Your task to perform on an android device: toggle location history Image 0: 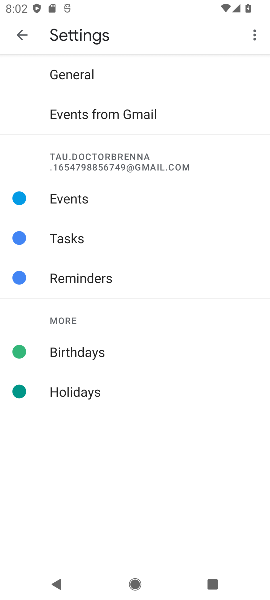
Step 0: press home button
Your task to perform on an android device: toggle location history Image 1: 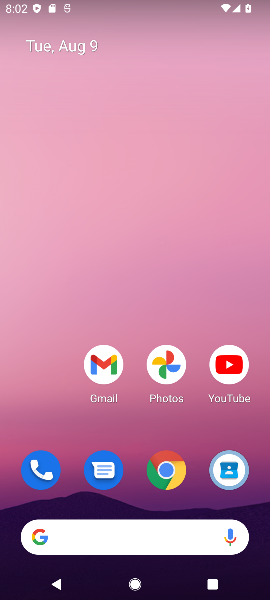
Step 1: drag from (126, 527) to (170, 167)
Your task to perform on an android device: toggle location history Image 2: 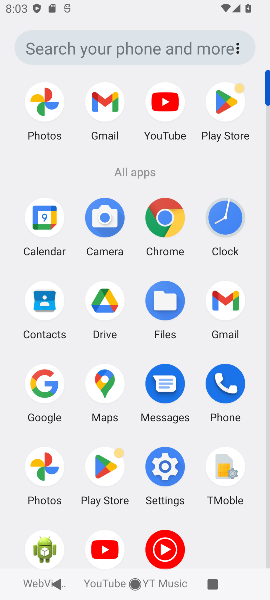
Step 2: click (164, 465)
Your task to perform on an android device: toggle location history Image 3: 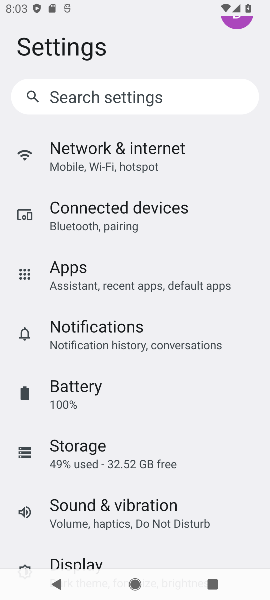
Step 3: drag from (114, 483) to (186, 380)
Your task to perform on an android device: toggle location history Image 4: 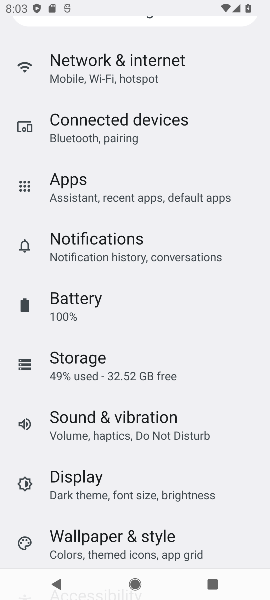
Step 4: drag from (112, 512) to (171, 414)
Your task to perform on an android device: toggle location history Image 5: 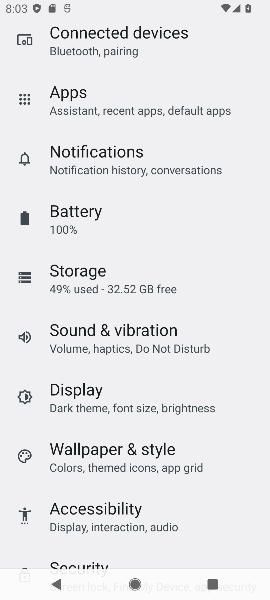
Step 5: drag from (111, 542) to (196, 392)
Your task to perform on an android device: toggle location history Image 6: 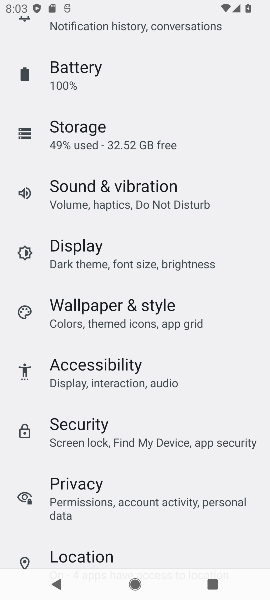
Step 6: drag from (126, 518) to (177, 432)
Your task to perform on an android device: toggle location history Image 7: 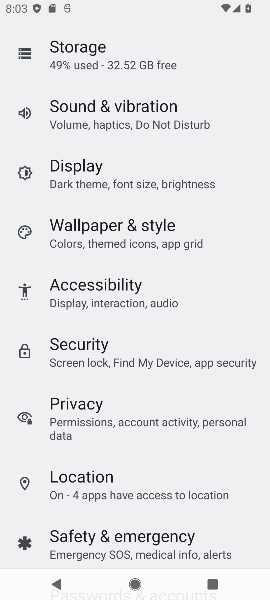
Step 7: click (117, 493)
Your task to perform on an android device: toggle location history Image 8: 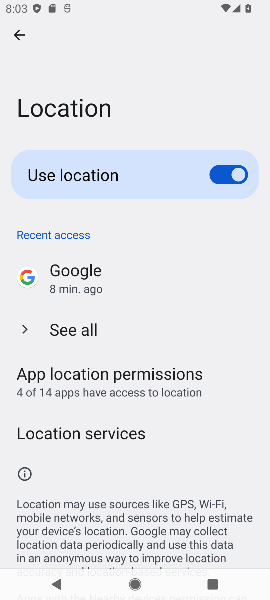
Step 8: click (110, 436)
Your task to perform on an android device: toggle location history Image 9: 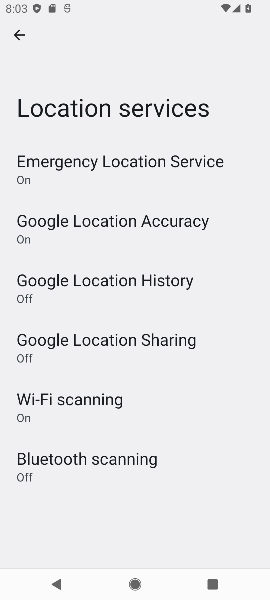
Step 9: click (182, 285)
Your task to perform on an android device: toggle location history Image 10: 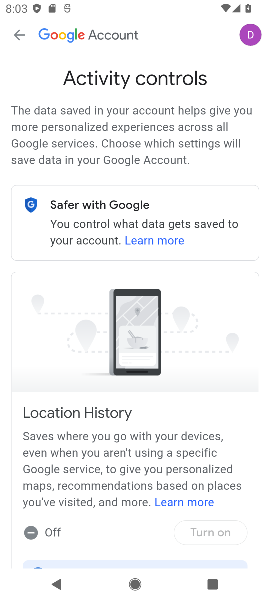
Step 10: drag from (128, 523) to (190, 210)
Your task to perform on an android device: toggle location history Image 11: 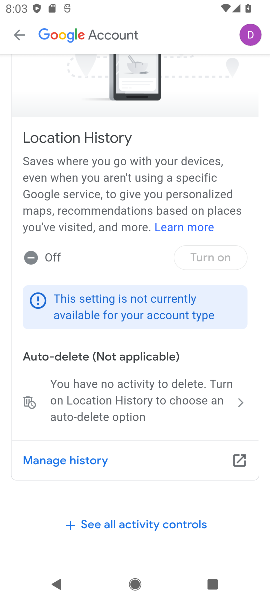
Step 11: click (137, 525)
Your task to perform on an android device: toggle location history Image 12: 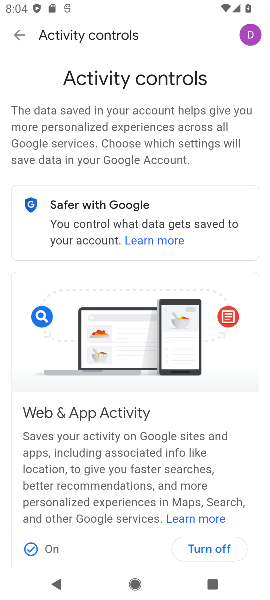
Step 12: task complete